Your task to perform on an android device: turn on airplane mode Image 0: 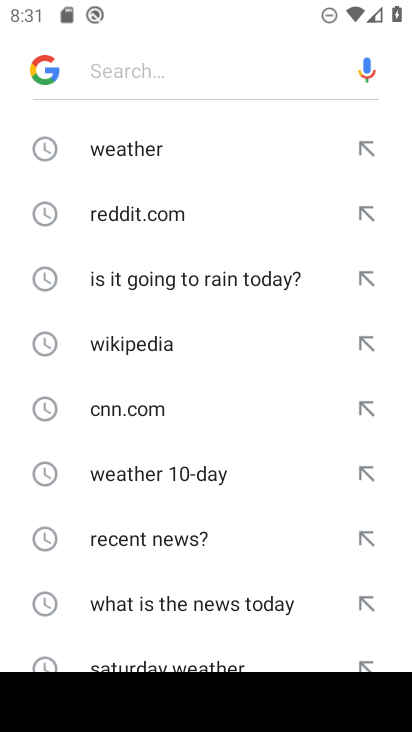
Step 0: press home button
Your task to perform on an android device: turn on airplane mode Image 1: 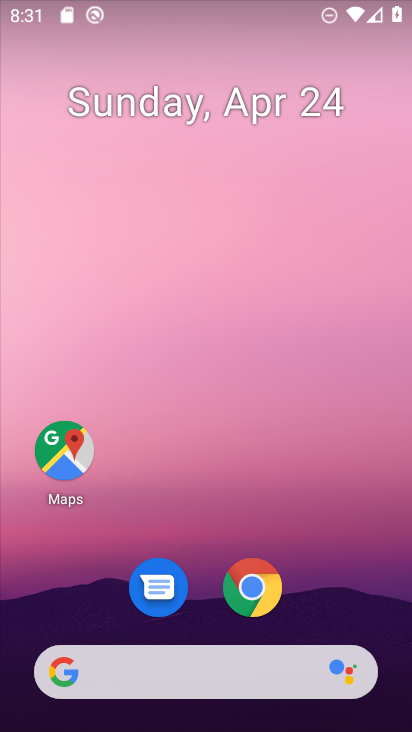
Step 1: drag from (337, 572) to (308, 142)
Your task to perform on an android device: turn on airplane mode Image 2: 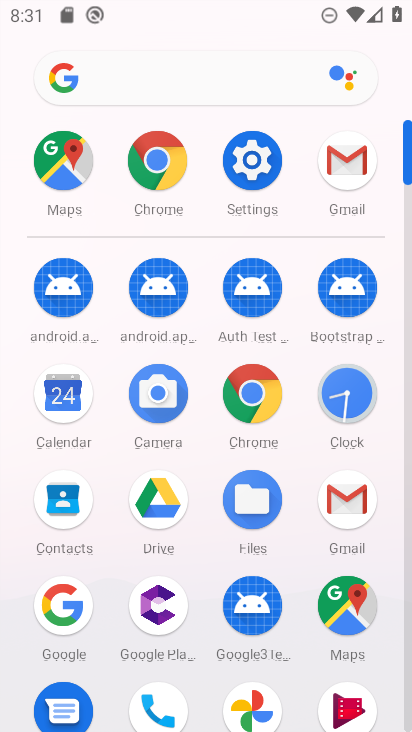
Step 2: click (259, 173)
Your task to perform on an android device: turn on airplane mode Image 3: 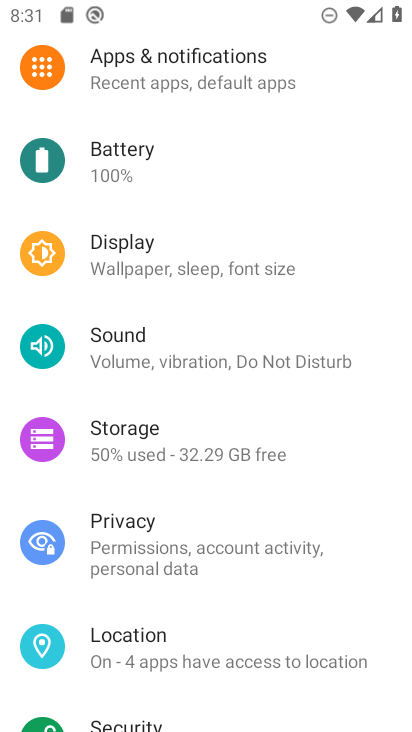
Step 3: drag from (197, 101) to (254, 544)
Your task to perform on an android device: turn on airplane mode Image 4: 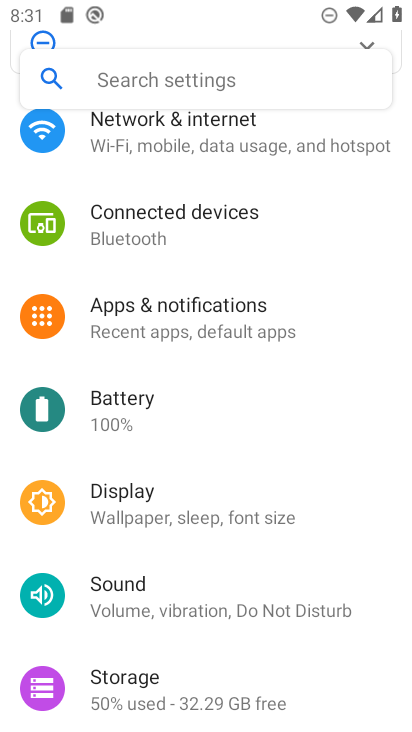
Step 4: click (216, 130)
Your task to perform on an android device: turn on airplane mode Image 5: 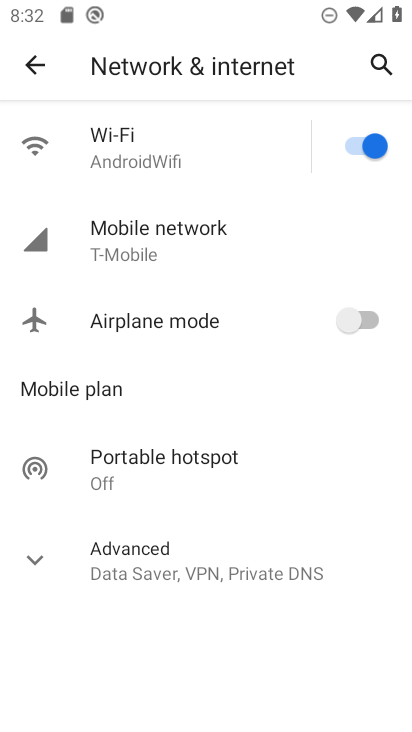
Step 5: click (370, 317)
Your task to perform on an android device: turn on airplane mode Image 6: 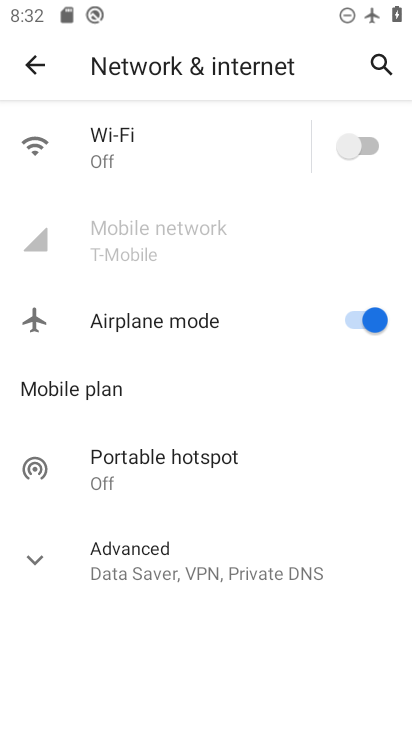
Step 6: task complete